Your task to perform on an android device: turn on the 12-hour format for clock Image 0: 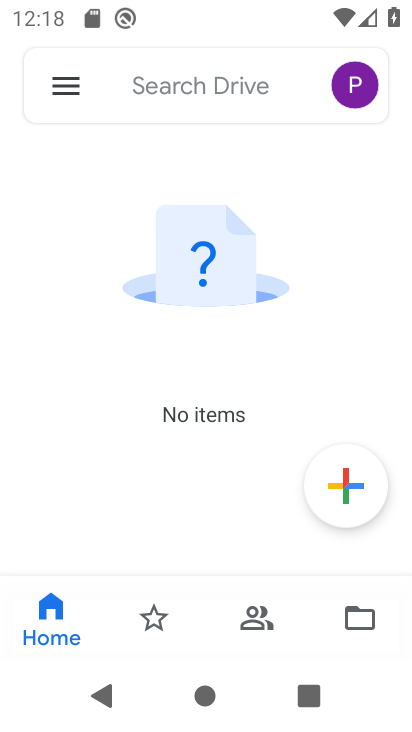
Step 0: press home button
Your task to perform on an android device: turn on the 12-hour format for clock Image 1: 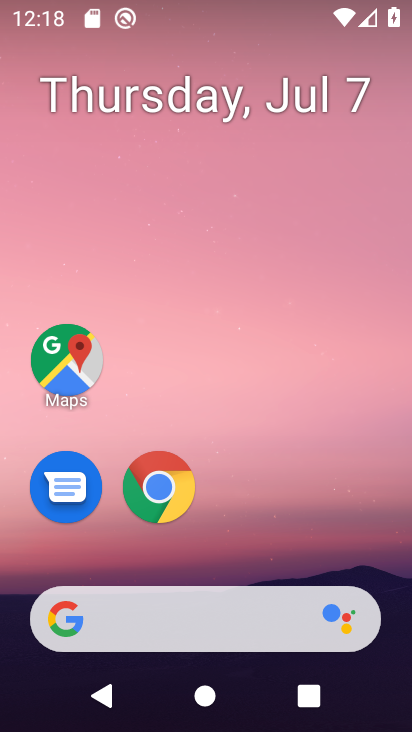
Step 1: drag from (363, 535) to (364, 91)
Your task to perform on an android device: turn on the 12-hour format for clock Image 2: 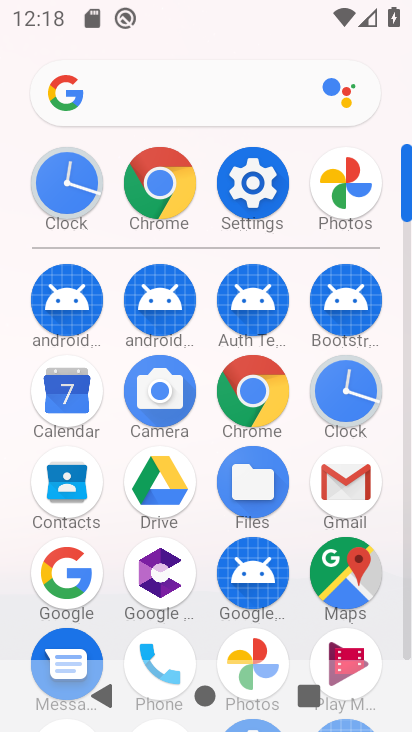
Step 2: click (363, 390)
Your task to perform on an android device: turn on the 12-hour format for clock Image 3: 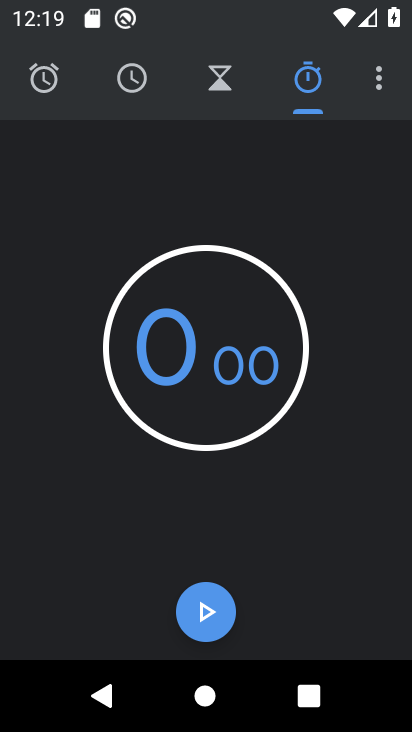
Step 3: click (377, 88)
Your task to perform on an android device: turn on the 12-hour format for clock Image 4: 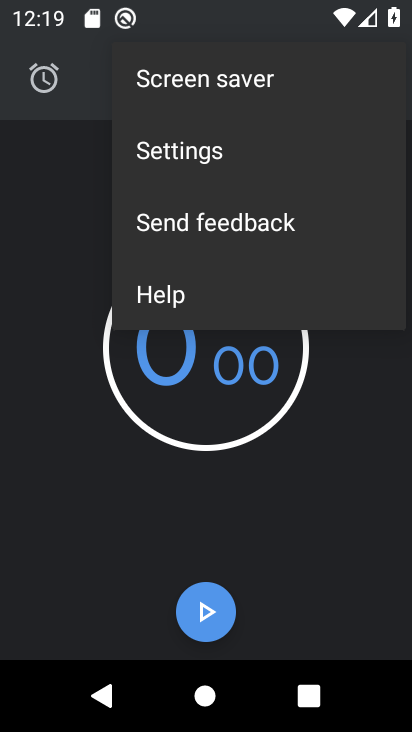
Step 4: click (247, 158)
Your task to perform on an android device: turn on the 12-hour format for clock Image 5: 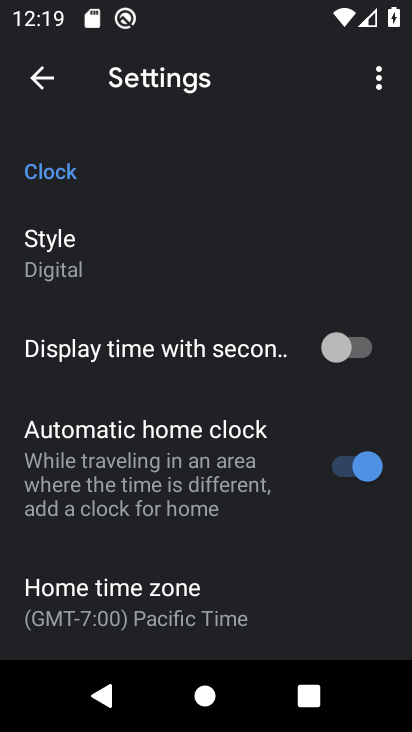
Step 5: drag from (274, 388) to (298, 301)
Your task to perform on an android device: turn on the 12-hour format for clock Image 6: 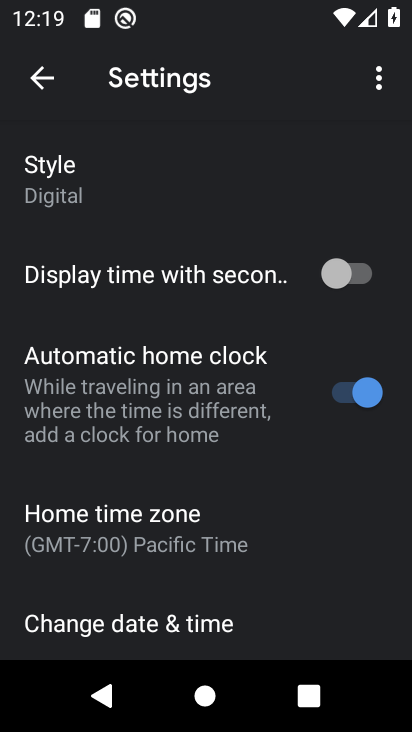
Step 6: drag from (306, 425) to (307, 346)
Your task to perform on an android device: turn on the 12-hour format for clock Image 7: 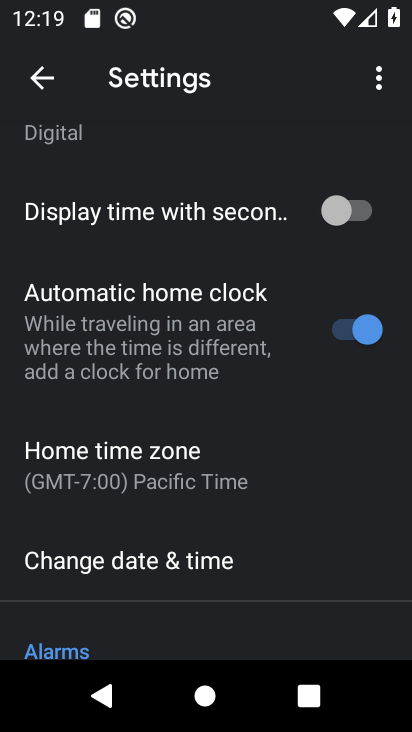
Step 7: drag from (290, 453) to (299, 377)
Your task to perform on an android device: turn on the 12-hour format for clock Image 8: 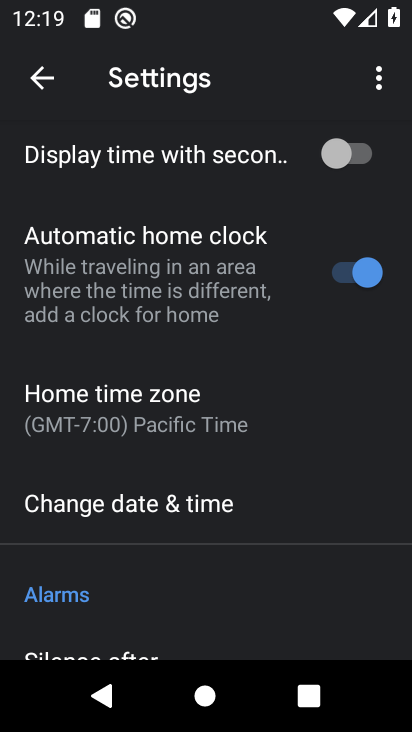
Step 8: drag from (295, 471) to (299, 343)
Your task to perform on an android device: turn on the 12-hour format for clock Image 9: 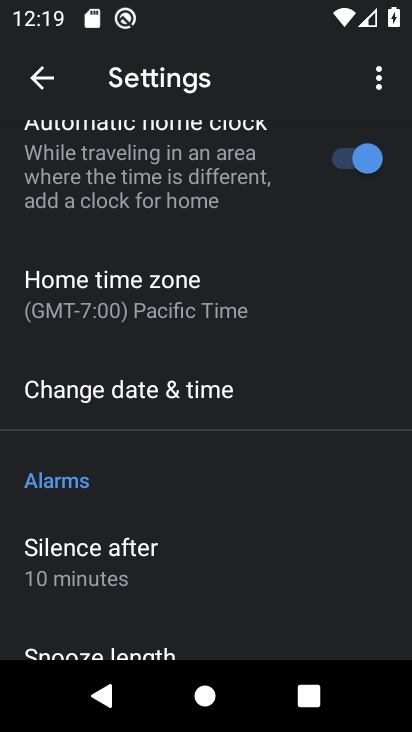
Step 9: click (217, 401)
Your task to perform on an android device: turn on the 12-hour format for clock Image 10: 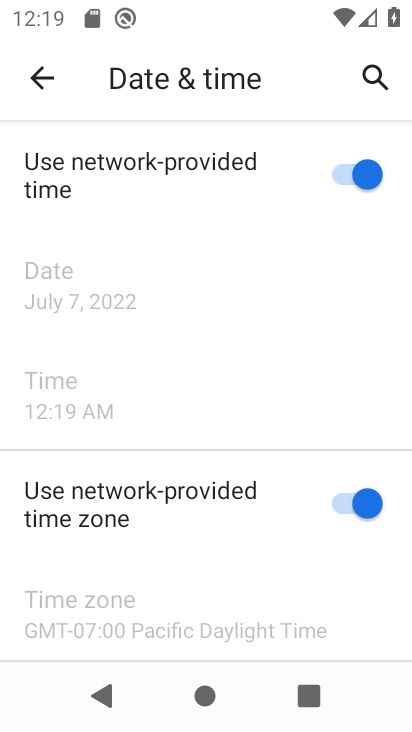
Step 10: task complete